Your task to perform on an android device: Go to network settings Image 0: 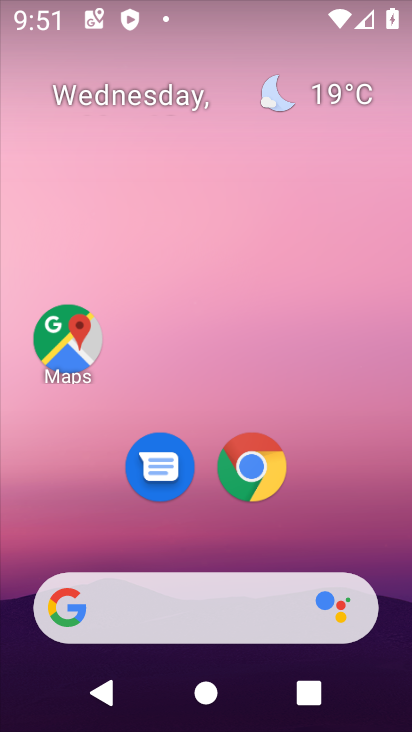
Step 0: drag from (329, 528) to (186, 34)
Your task to perform on an android device: Go to network settings Image 1: 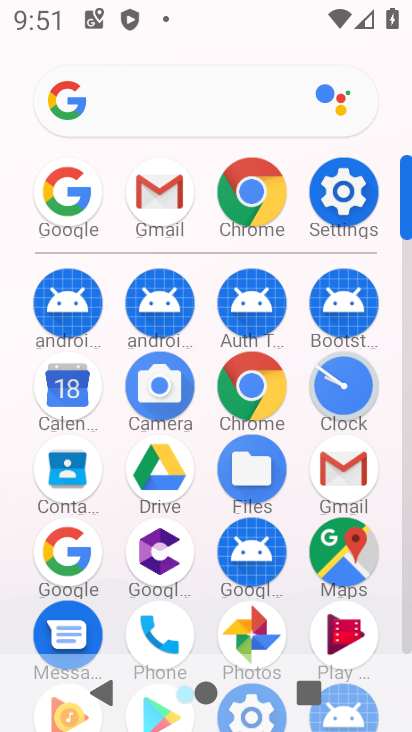
Step 1: click (339, 191)
Your task to perform on an android device: Go to network settings Image 2: 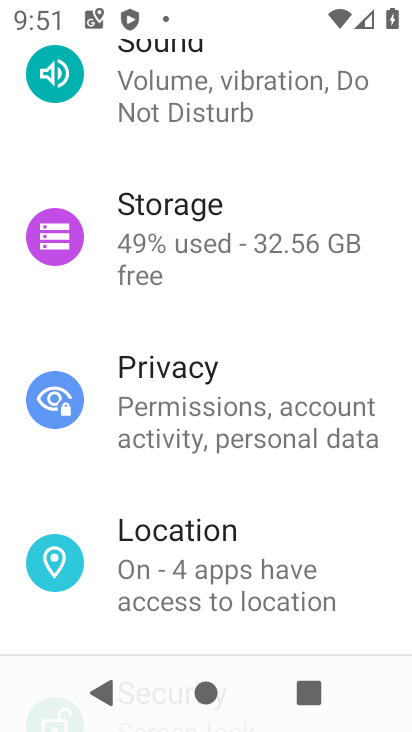
Step 2: drag from (239, 141) to (268, 627)
Your task to perform on an android device: Go to network settings Image 3: 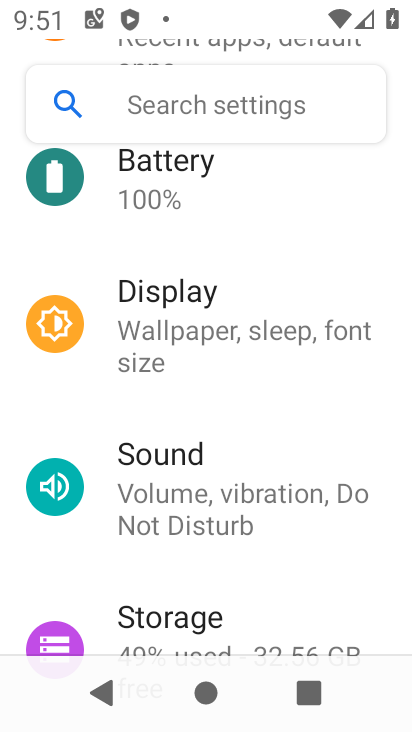
Step 3: drag from (251, 199) to (263, 634)
Your task to perform on an android device: Go to network settings Image 4: 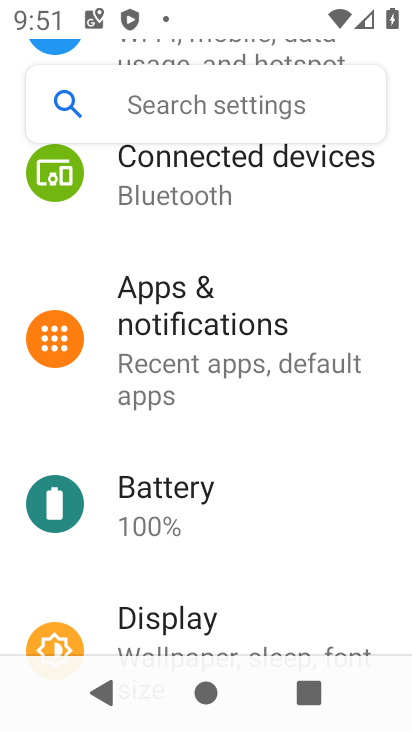
Step 4: drag from (254, 213) to (266, 640)
Your task to perform on an android device: Go to network settings Image 5: 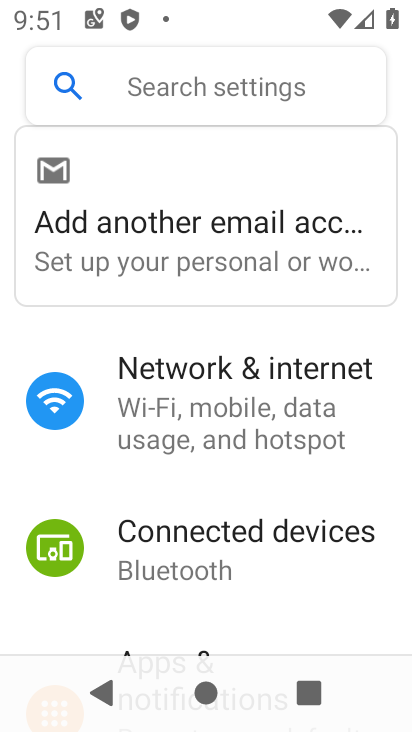
Step 5: click (214, 411)
Your task to perform on an android device: Go to network settings Image 6: 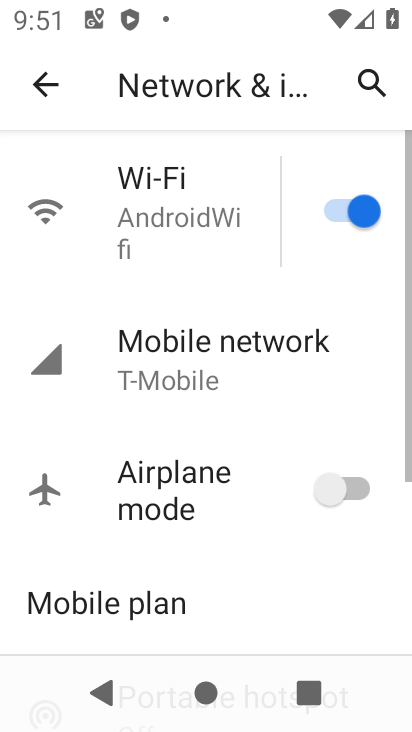
Step 6: task complete